Your task to perform on an android device: Search for "razer blade" on bestbuy.com, select the first entry, and add it to the cart. Image 0: 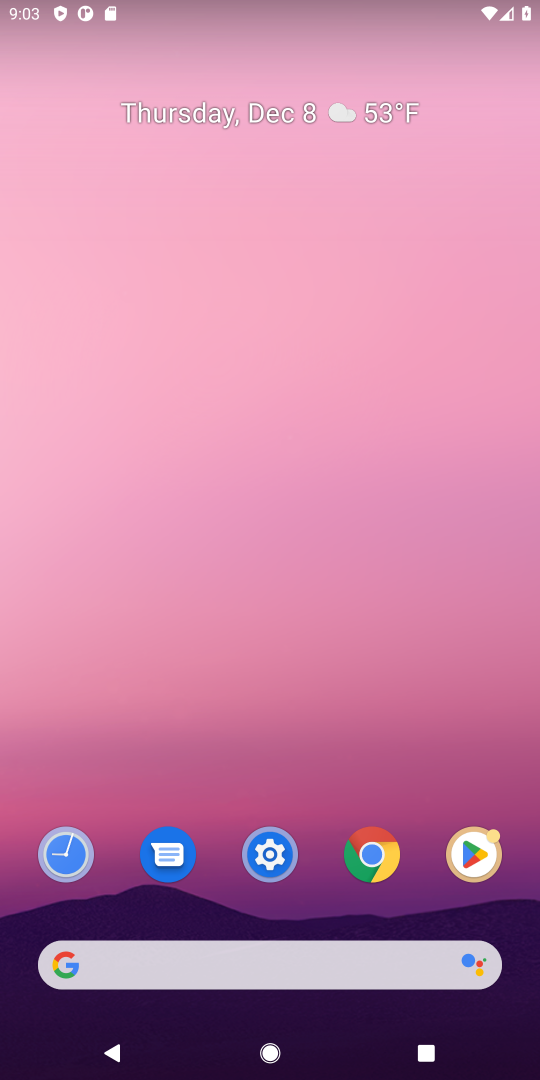
Step 0: click (103, 961)
Your task to perform on an android device: Search for "razer blade" on bestbuy.com, select the first entry, and add it to the cart. Image 1: 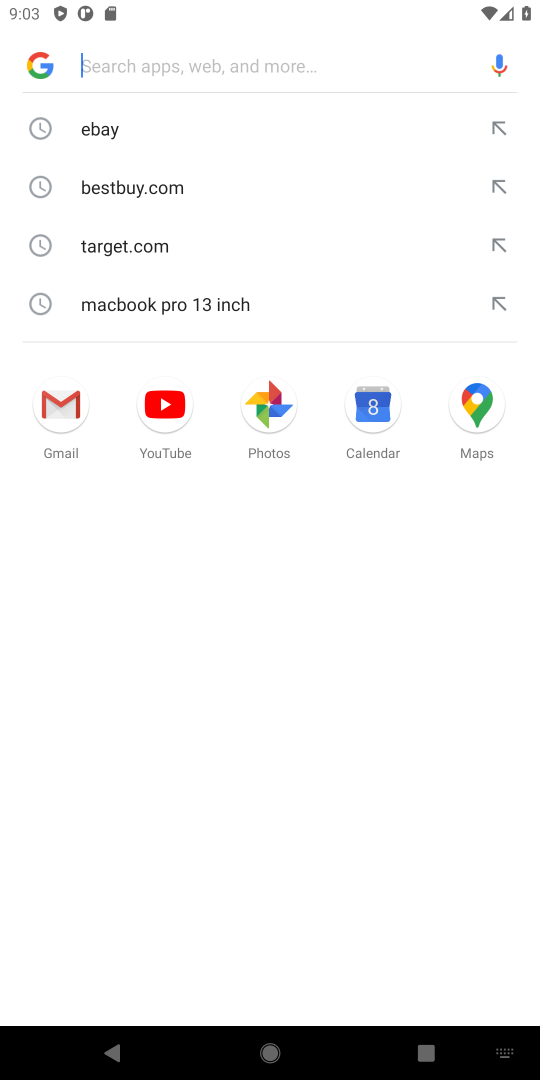
Step 1: type "bestbuy.com"
Your task to perform on an android device: Search for "razer blade" on bestbuy.com, select the first entry, and add it to the cart. Image 2: 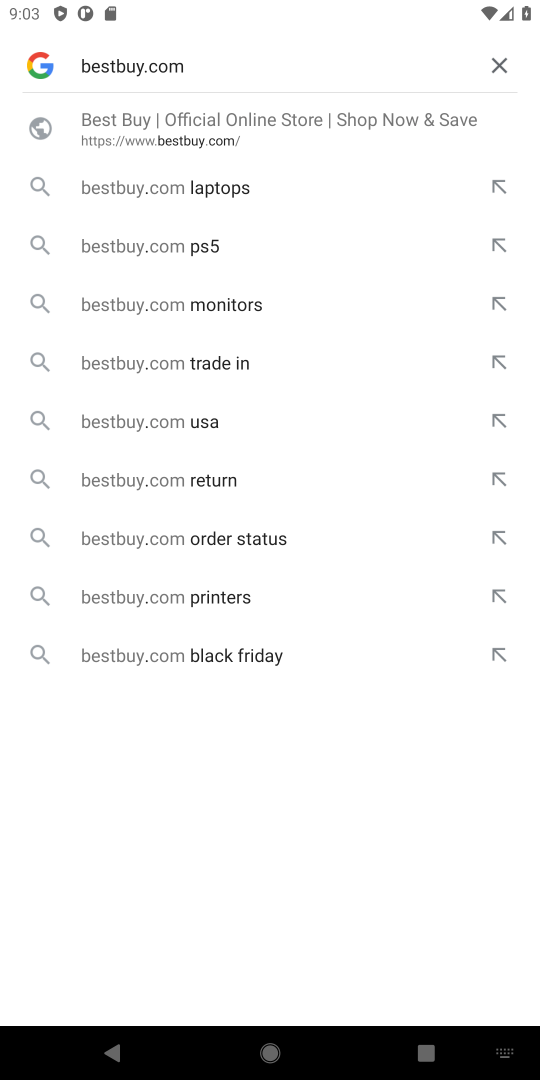
Step 2: press enter
Your task to perform on an android device: Search for "razer blade" on bestbuy.com, select the first entry, and add it to the cart. Image 3: 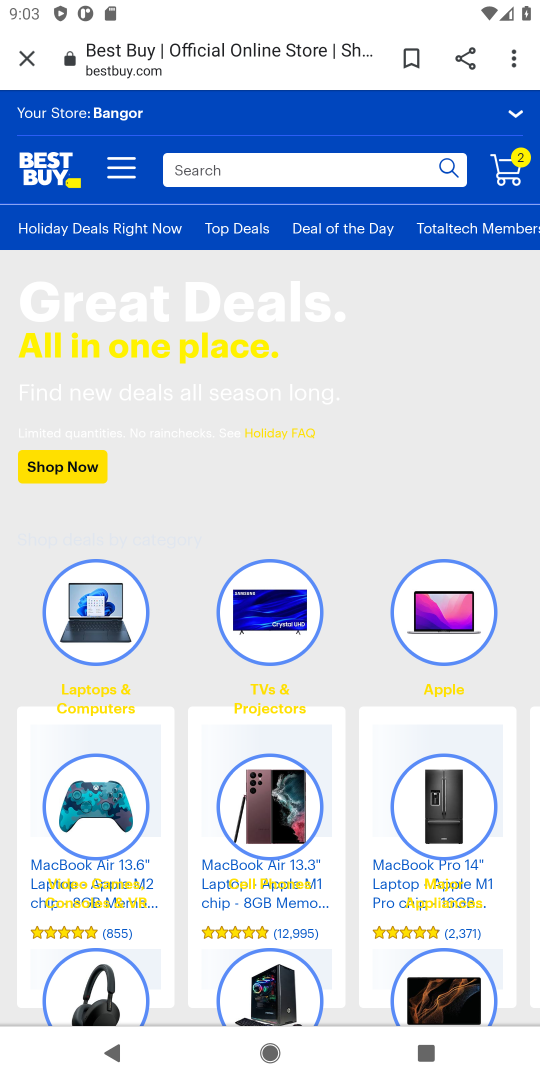
Step 3: click (224, 174)
Your task to perform on an android device: Search for "razer blade" on bestbuy.com, select the first entry, and add it to the cart. Image 4: 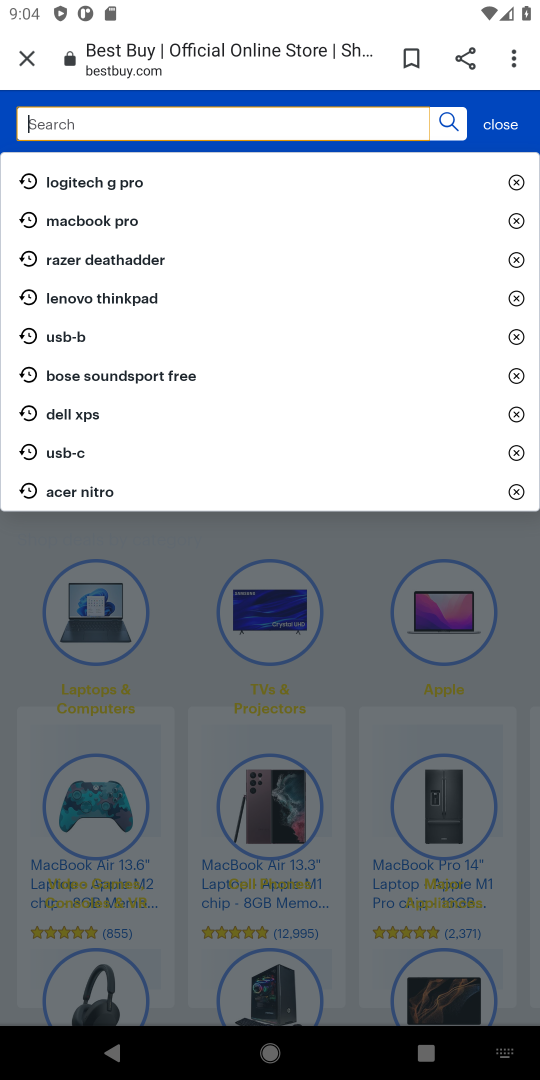
Step 4: type "razer blade"
Your task to perform on an android device: Search for "razer blade" on bestbuy.com, select the first entry, and add it to the cart. Image 5: 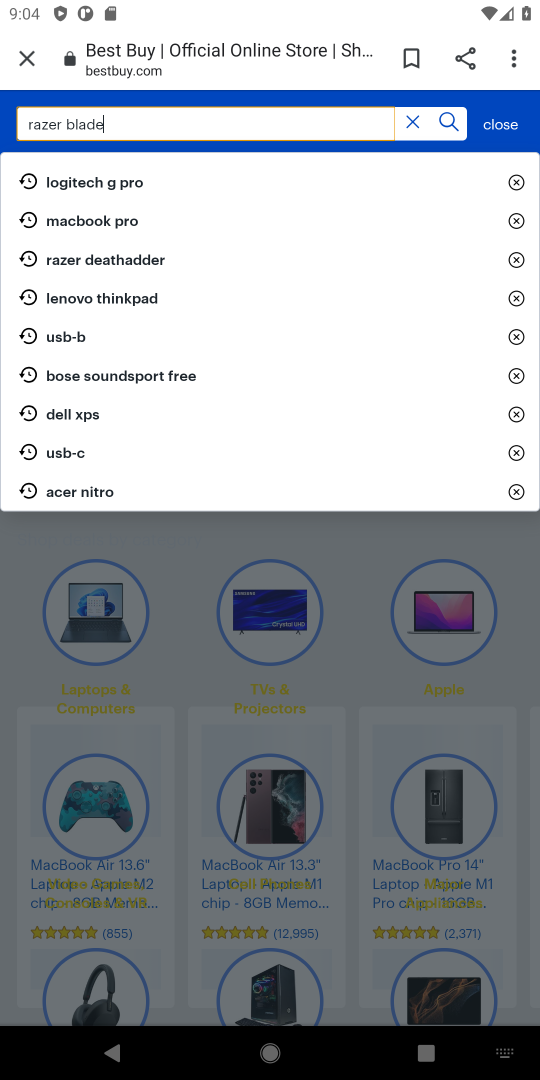
Step 5: press enter
Your task to perform on an android device: Search for "razer blade" on bestbuy.com, select the first entry, and add it to the cart. Image 6: 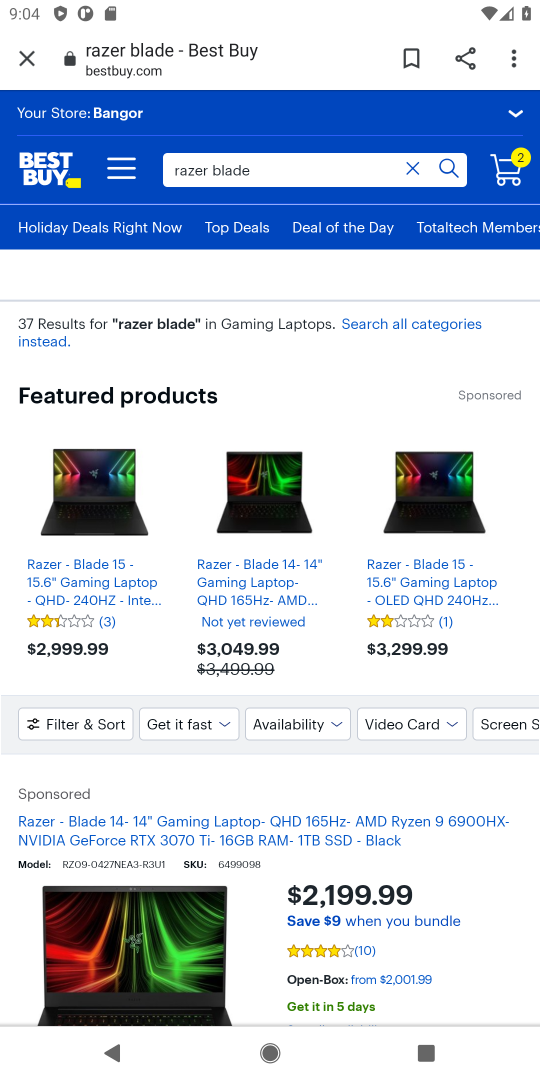
Step 6: drag from (386, 908) to (397, 531)
Your task to perform on an android device: Search for "razer blade" on bestbuy.com, select the first entry, and add it to the cart. Image 7: 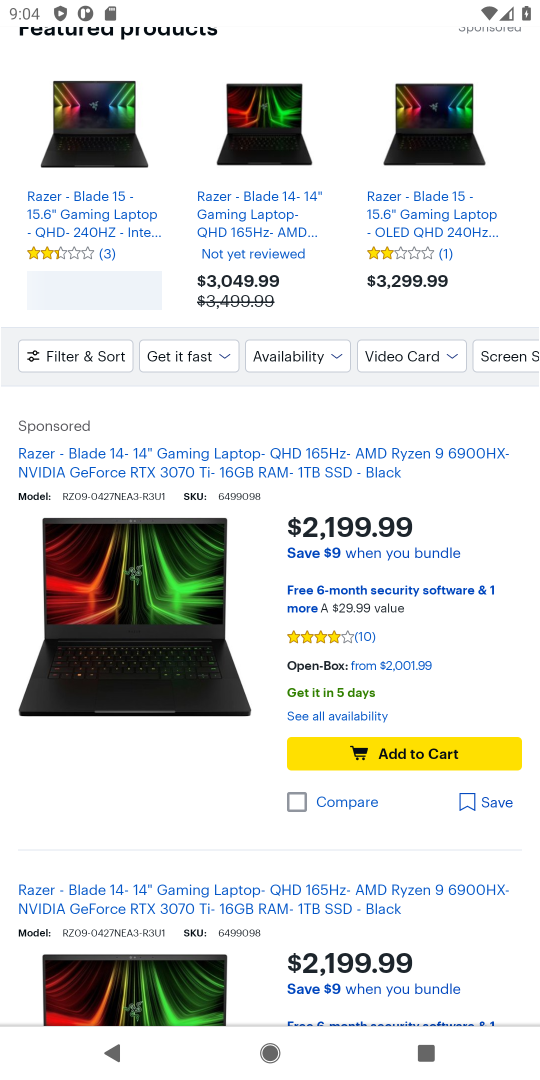
Step 7: click (405, 696)
Your task to perform on an android device: Search for "razer blade" on bestbuy.com, select the first entry, and add it to the cart. Image 8: 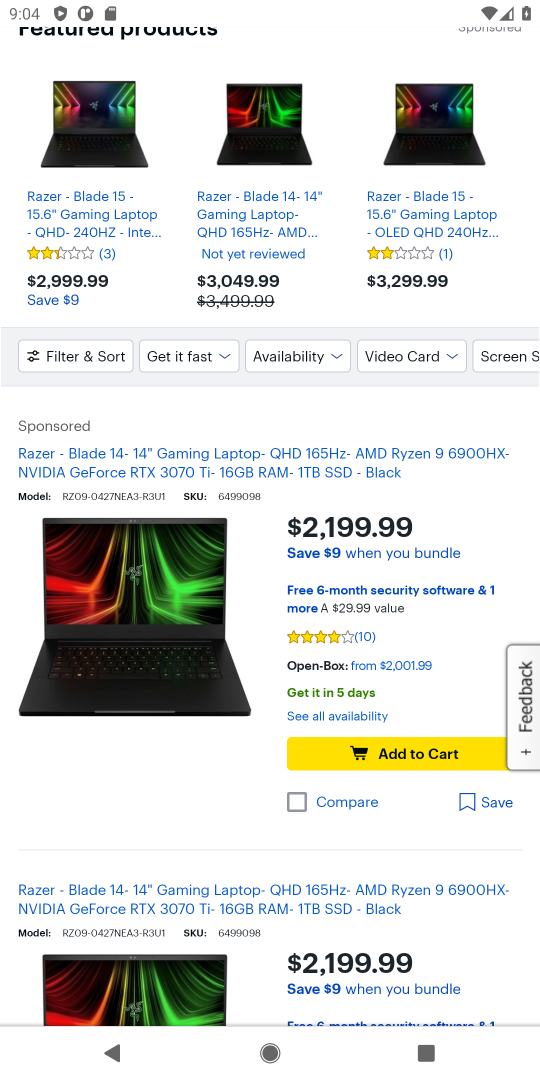
Step 8: click (385, 758)
Your task to perform on an android device: Search for "razer blade" on bestbuy.com, select the first entry, and add it to the cart. Image 9: 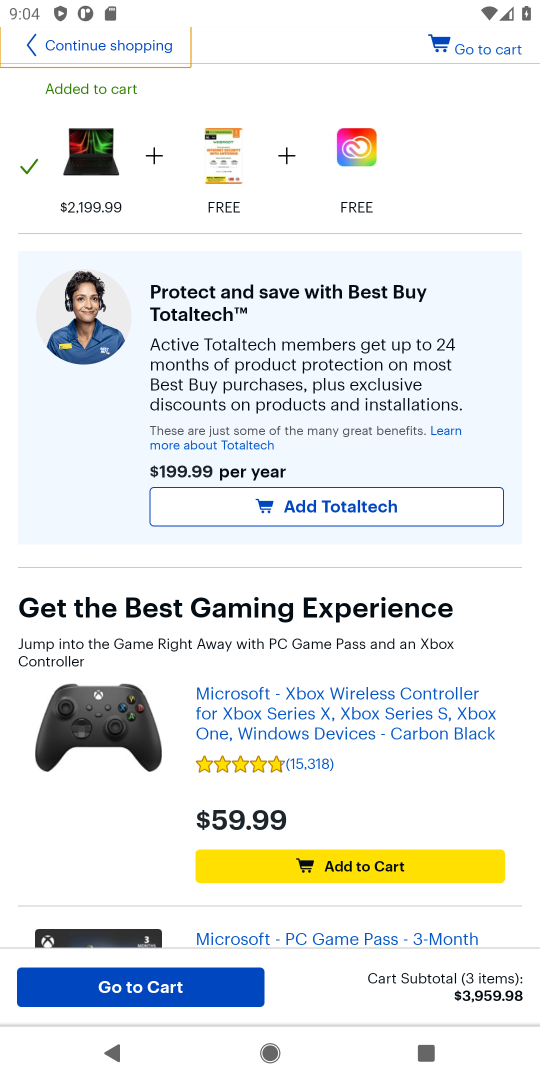
Step 9: task complete